Your task to perform on an android device: turn on priority inbox in the gmail app Image 0: 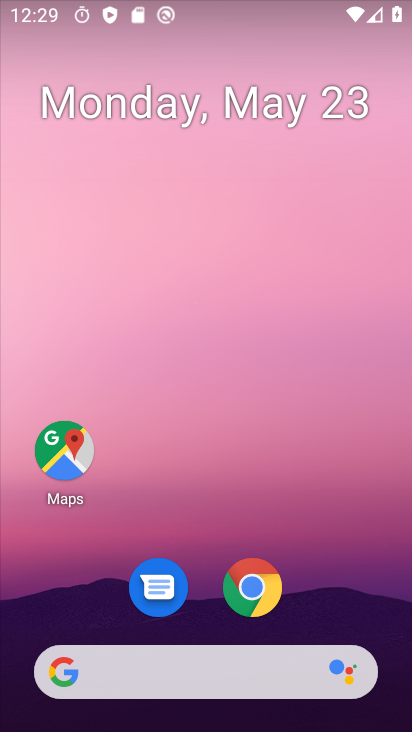
Step 0: drag from (207, 350) to (211, 5)
Your task to perform on an android device: turn on priority inbox in the gmail app Image 1: 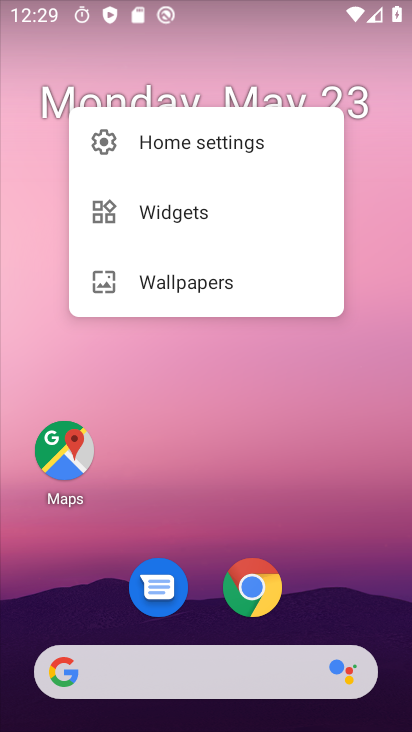
Step 1: click (157, 414)
Your task to perform on an android device: turn on priority inbox in the gmail app Image 2: 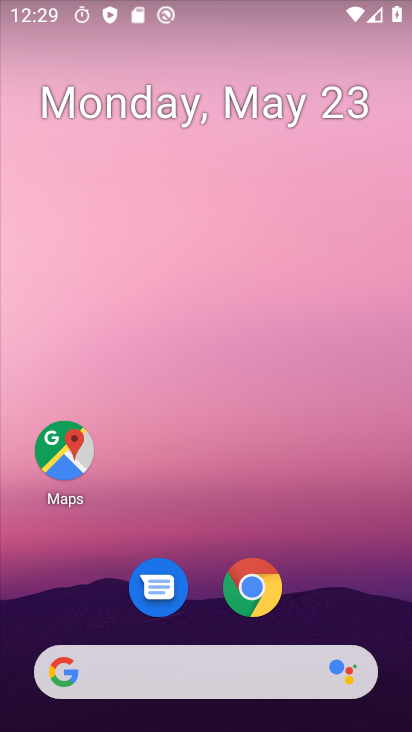
Step 2: click (266, 434)
Your task to perform on an android device: turn on priority inbox in the gmail app Image 3: 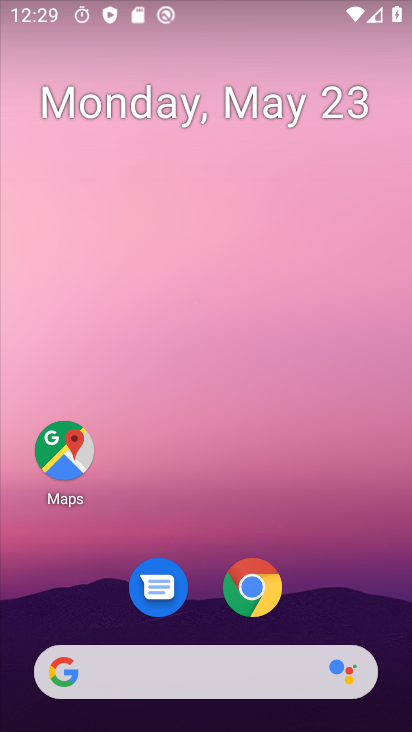
Step 3: drag from (199, 535) to (266, 55)
Your task to perform on an android device: turn on priority inbox in the gmail app Image 4: 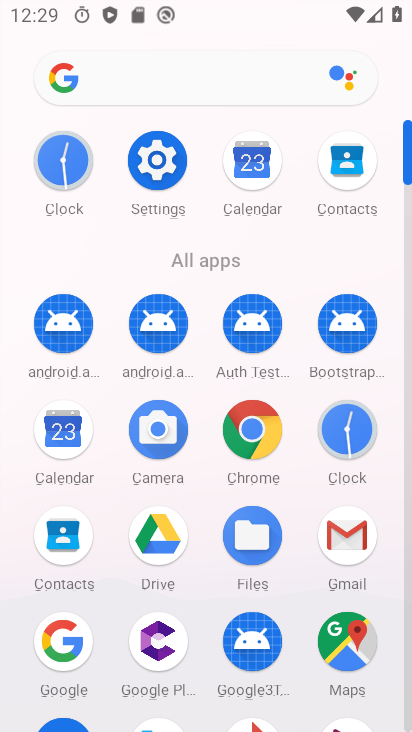
Step 4: click (362, 537)
Your task to perform on an android device: turn on priority inbox in the gmail app Image 5: 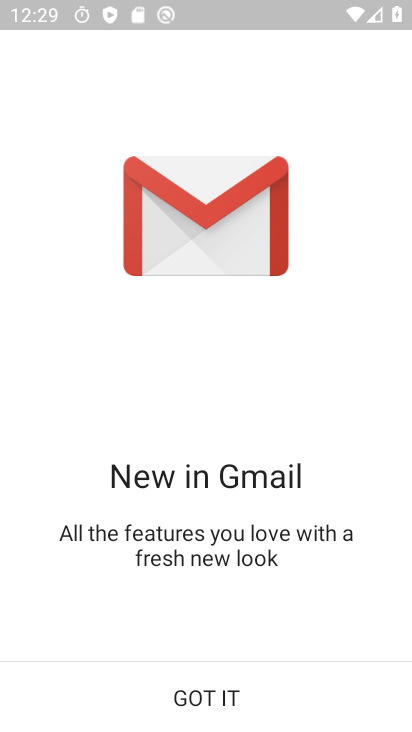
Step 5: click (248, 695)
Your task to perform on an android device: turn on priority inbox in the gmail app Image 6: 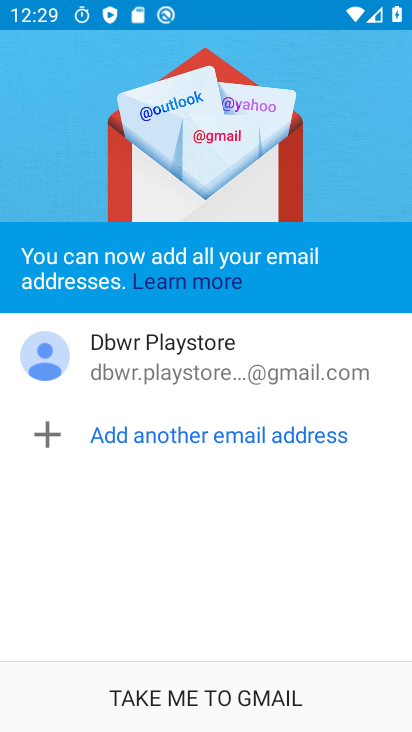
Step 6: click (209, 680)
Your task to perform on an android device: turn on priority inbox in the gmail app Image 7: 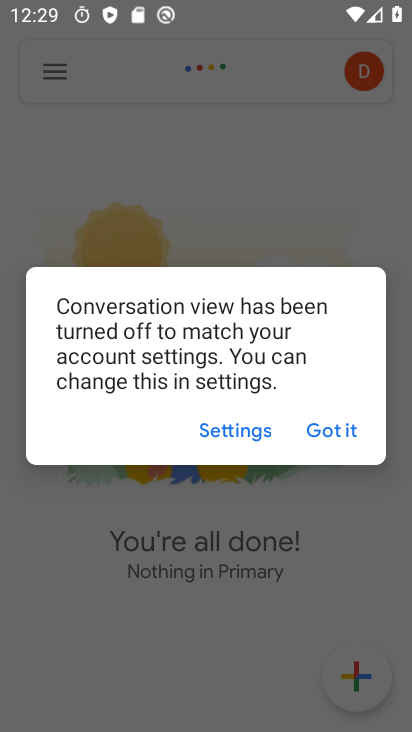
Step 7: click (334, 437)
Your task to perform on an android device: turn on priority inbox in the gmail app Image 8: 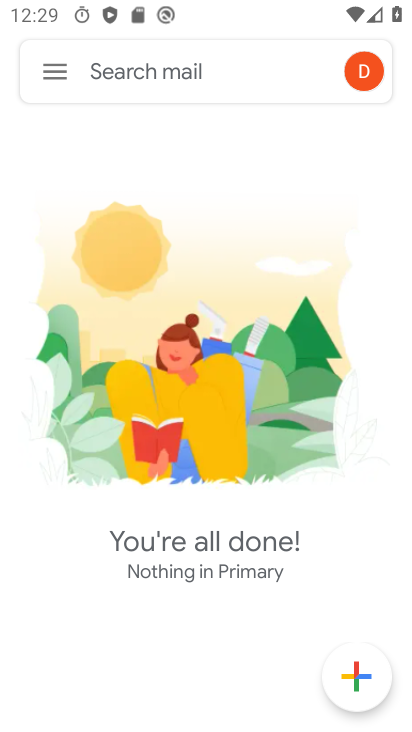
Step 8: click (43, 70)
Your task to perform on an android device: turn on priority inbox in the gmail app Image 9: 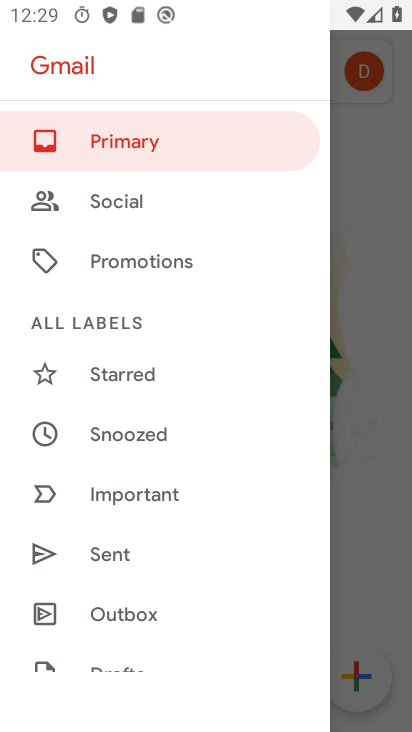
Step 9: drag from (199, 483) to (234, 18)
Your task to perform on an android device: turn on priority inbox in the gmail app Image 10: 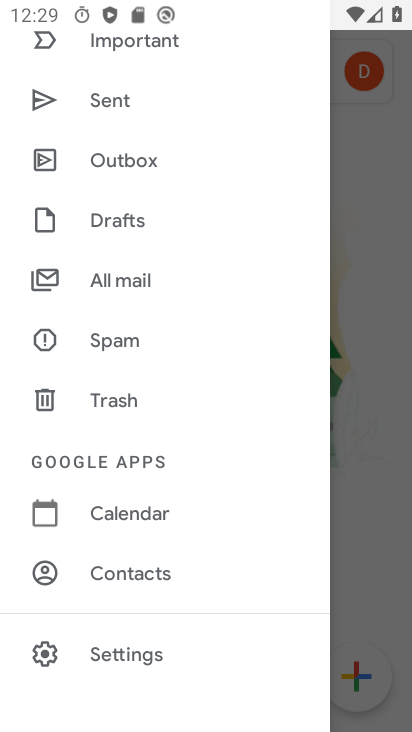
Step 10: drag from (121, 630) to (250, 75)
Your task to perform on an android device: turn on priority inbox in the gmail app Image 11: 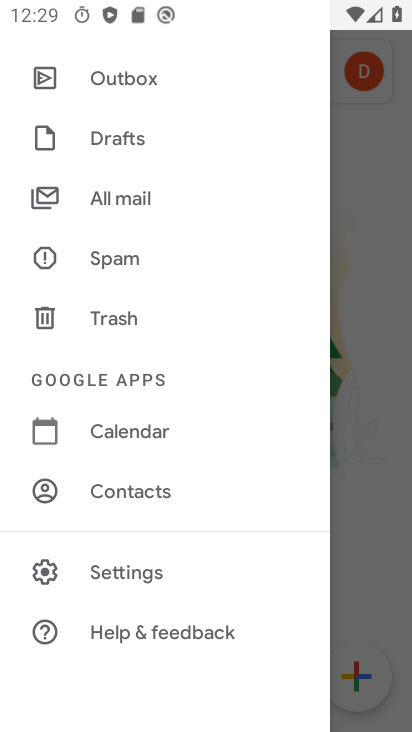
Step 11: drag from (153, 628) to (169, 213)
Your task to perform on an android device: turn on priority inbox in the gmail app Image 12: 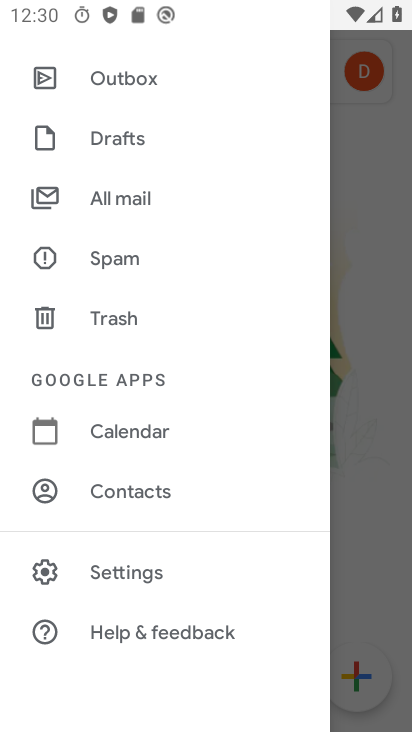
Step 12: click (143, 578)
Your task to perform on an android device: turn on priority inbox in the gmail app Image 13: 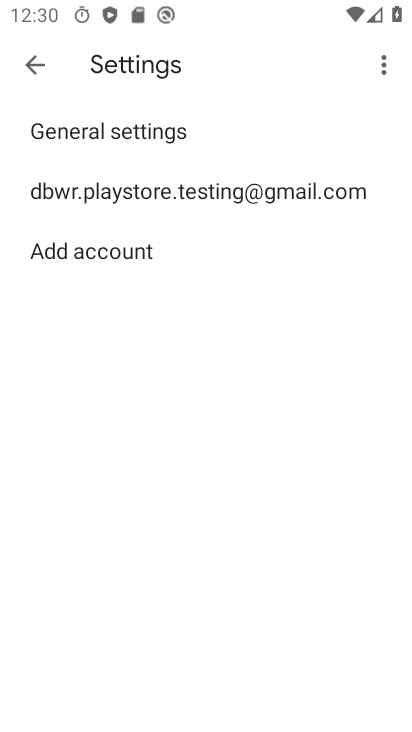
Step 13: click (131, 200)
Your task to perform on an android device: turn on priority inbox in the gmail app Image 14: 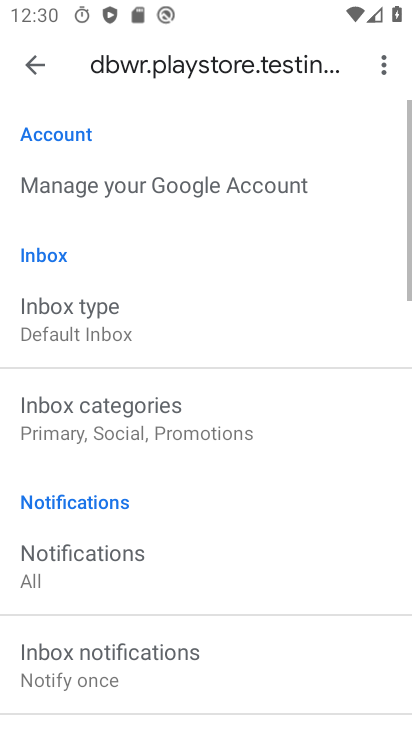
Step 14: click (76, 320)
Your task to perform on an android device: turn on priority inbox in the gmail app Image 15: 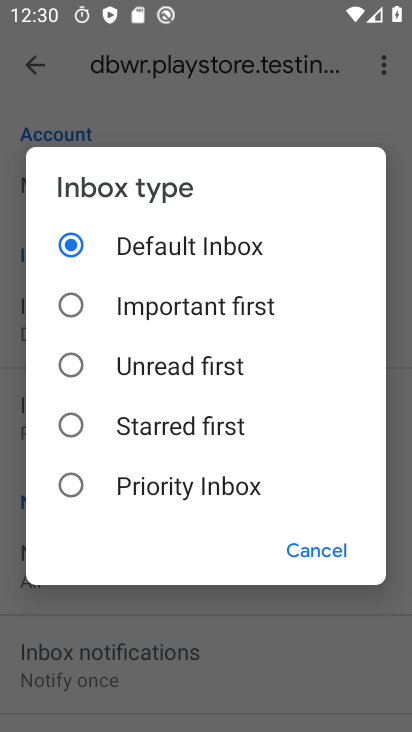
Step 15: click (74, 479)
Your task to perform on an android device: turn on priority inbox in the gmail app Image 16: 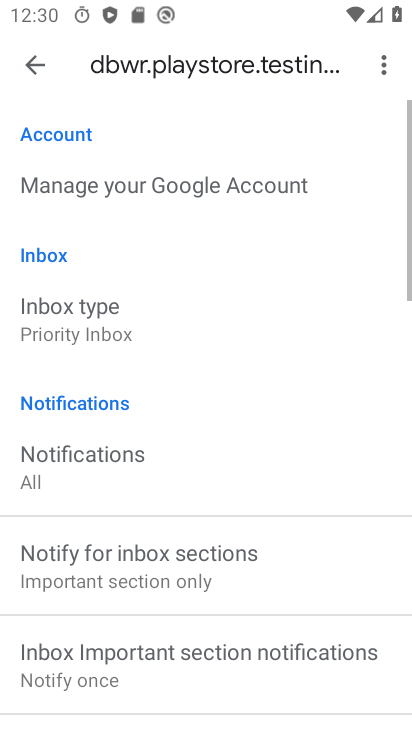
Step 16: task complete